Your task to perform on an android device: What's the weather going to be tomorrow? Image 0: 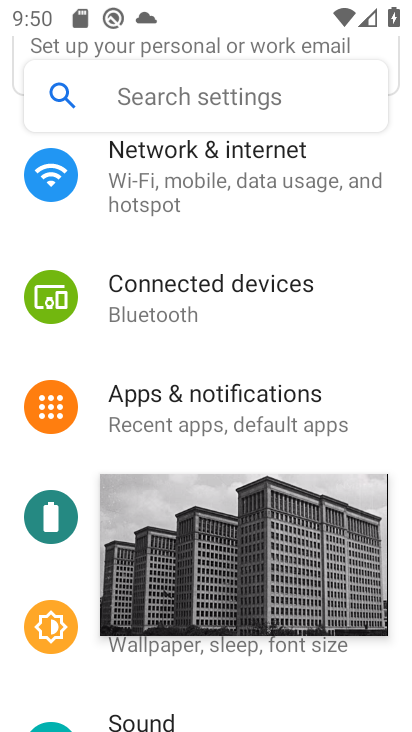
Step 0: click (359, 501)
Your task to perform on an android device: What's the weather going to be tomorrow? Image 1: 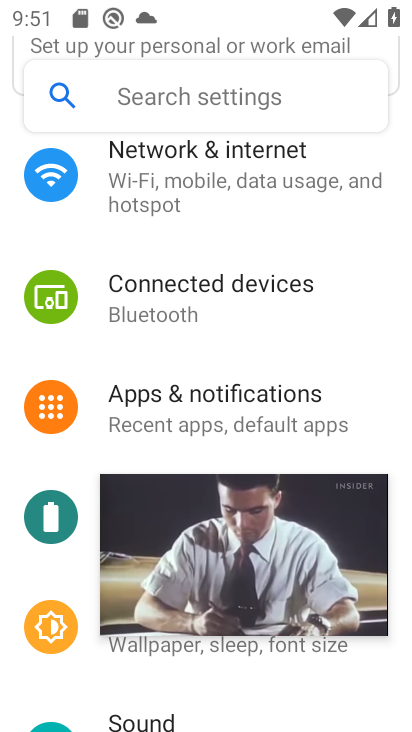
Step 1: click (376, 488)
Your task to perform on an android device: What's the weather going to be tomorrow? Image 2: 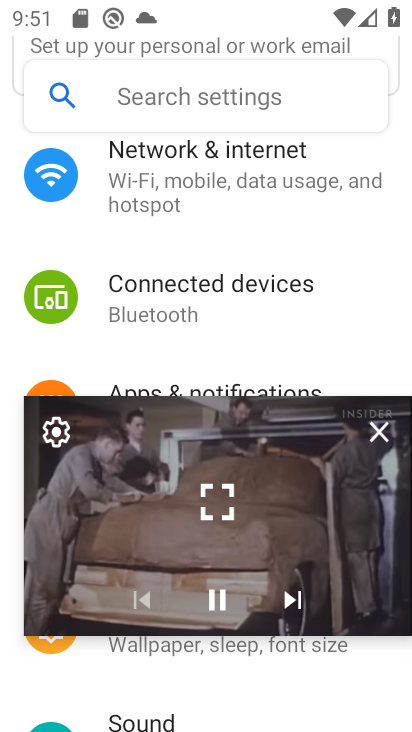
Step 2: click (376, 488)
Your task to perform on an android device: What's the weather going to be tomorrow? Image 3: 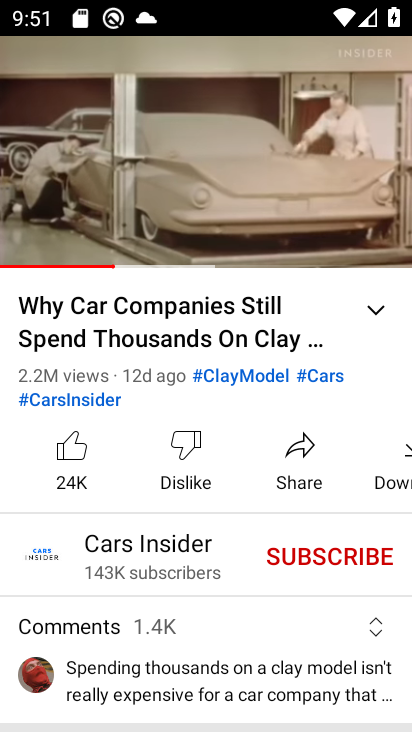
Step 3: click (302, 143)
Your task to perform on an android device: What's the weather going to be tomorrow? Image 4: 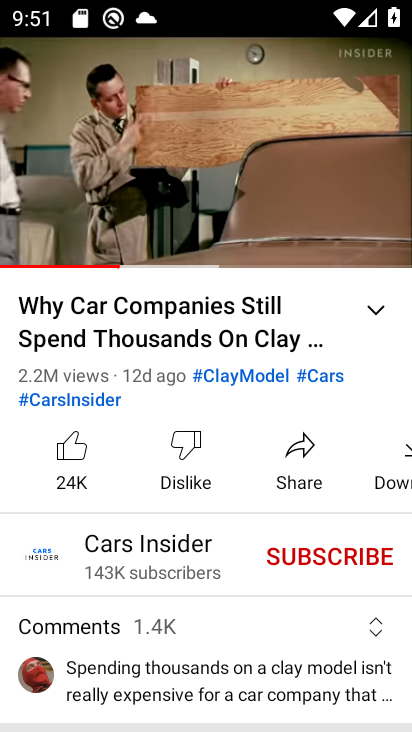
Step 4: task complete